Your task to perform on an android device: turn on location history Image 0: 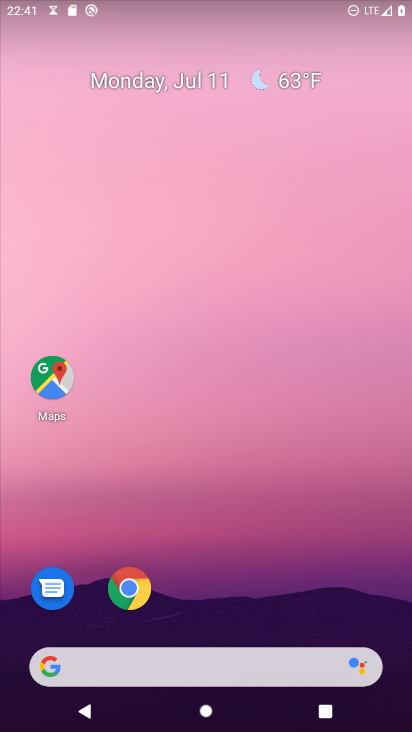
Step 0: press home button
Your task to perform on an android device: turn on location history Image 1: 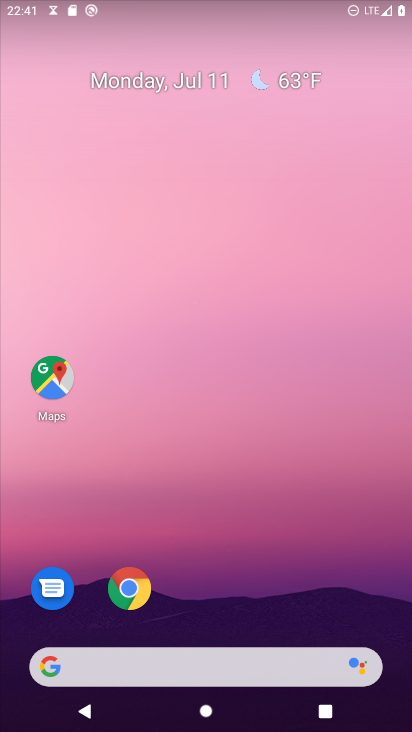
Step 1: drag from (222, 623) to (259, 78)
Your task to perform on an android device: turn on location history Image 2: 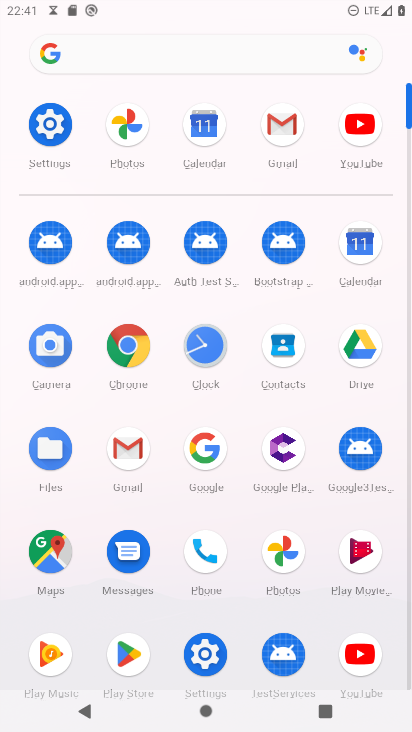
Step 2: click (56, 124)
Your task to perform on an android device: turn on location history Image 3: 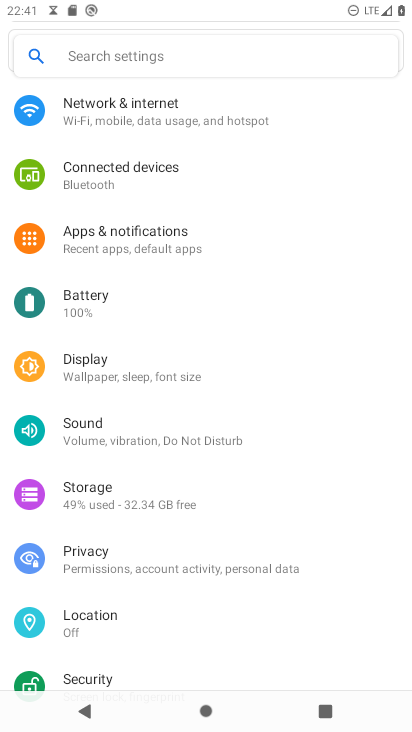
Step 3: click (89, 624)
Your task to perform on an android device: turn on location history Image 4: 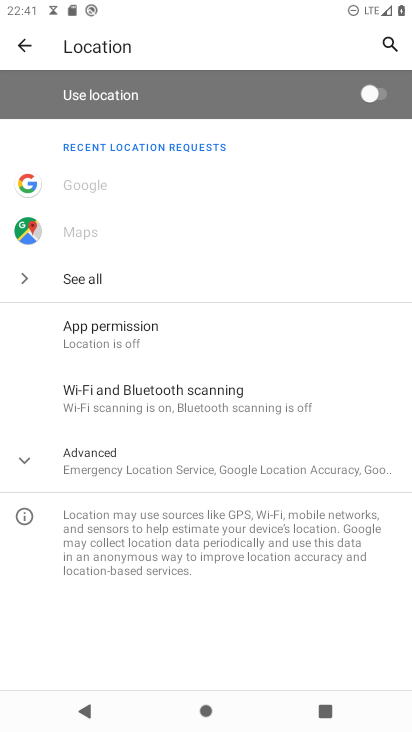
Step 4: click (96, 465)
Your task to perform on an android device: turn on location history Image 5: 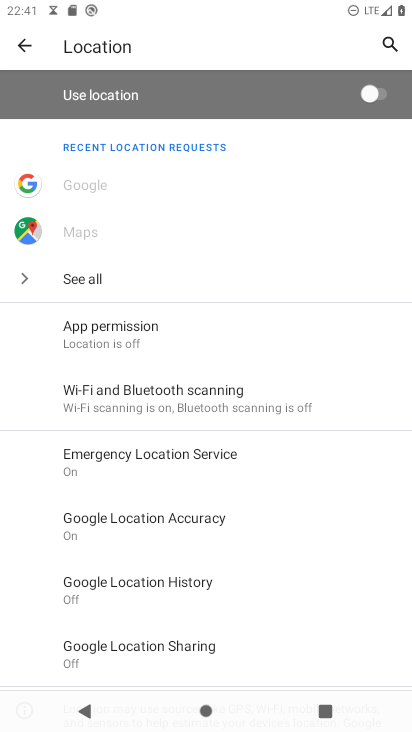
Step 5: click (159, 573)
Your task to perform on an android device: turn on location history Image 6: 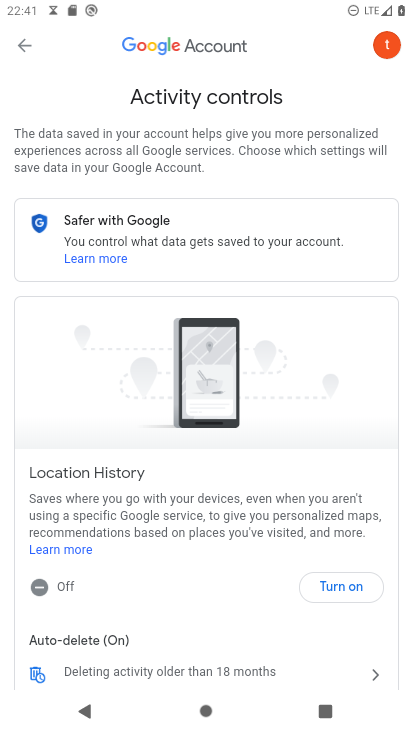
Step 6: click (346, 586)
Your task to perform on an android device: turn on location history Image 7: 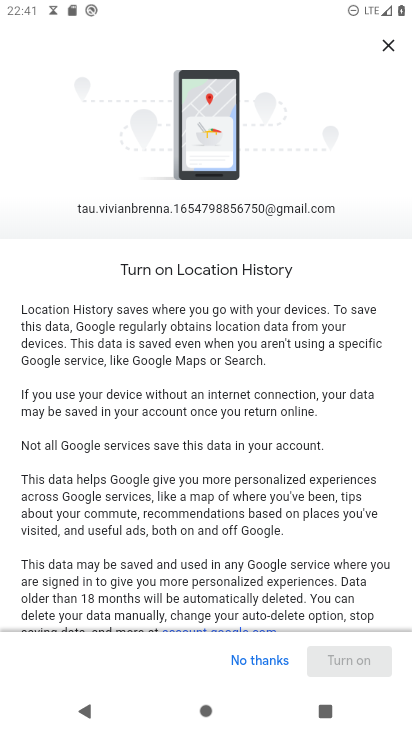
Step 7: drag from (406, 589) to (409, 158)
Your task to perform on an android device: turn on location history Image 8: 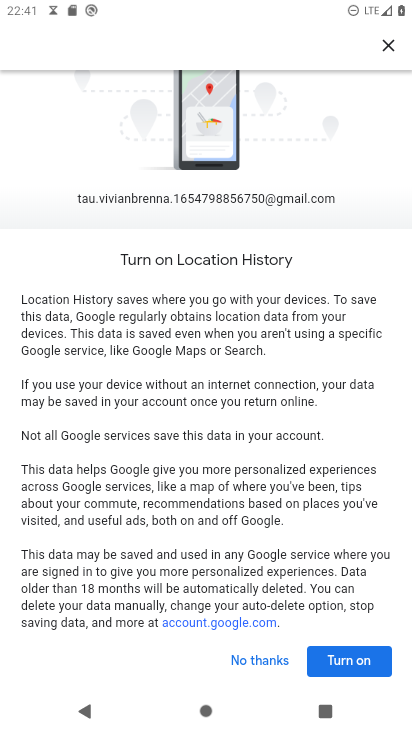
Step 8: click (338, 663)
Your task to perform on an android device: turn on location history Image 9: 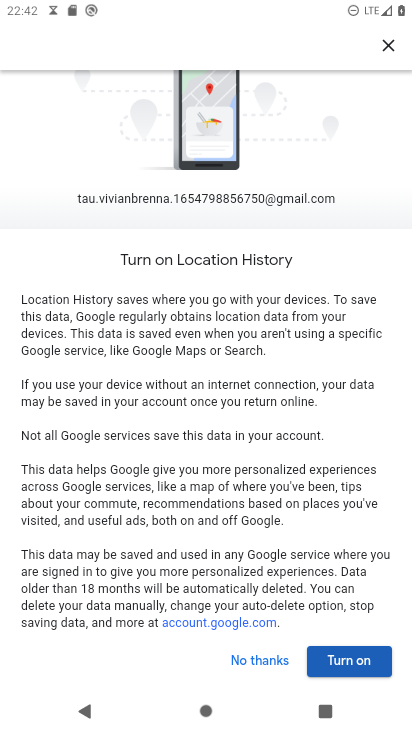
Step 9: click (347, 666)
Your task to perform on an android device: turn on location history Image 10: 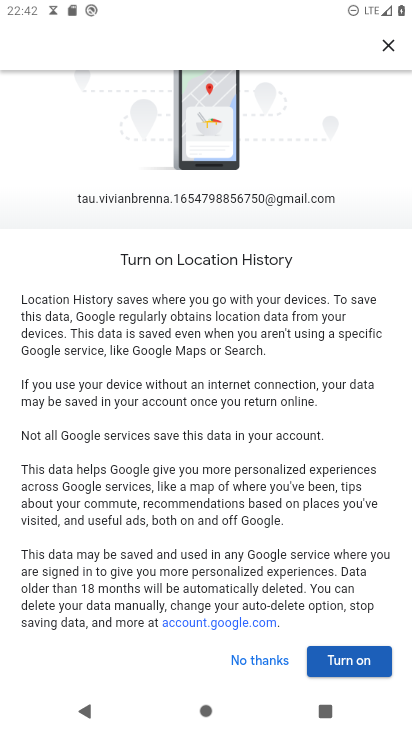
Step 10: click (327, 655)
Your task to perform on an android device: turn on location history Image 11: 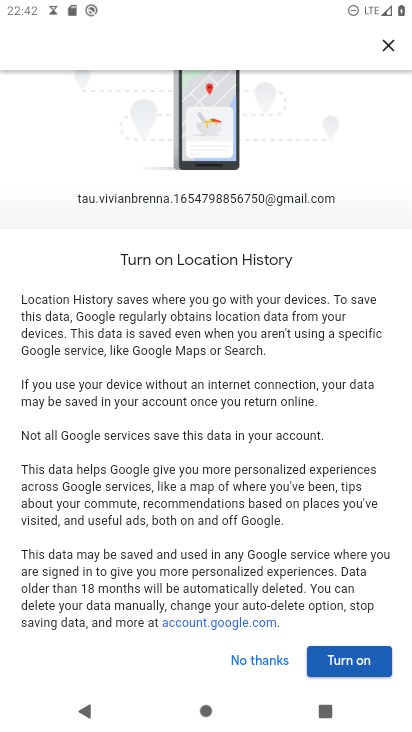
Step 11: drag from (324, 626) to (391, 188)
Your task to perform on an android device: turn on location history Image 12: 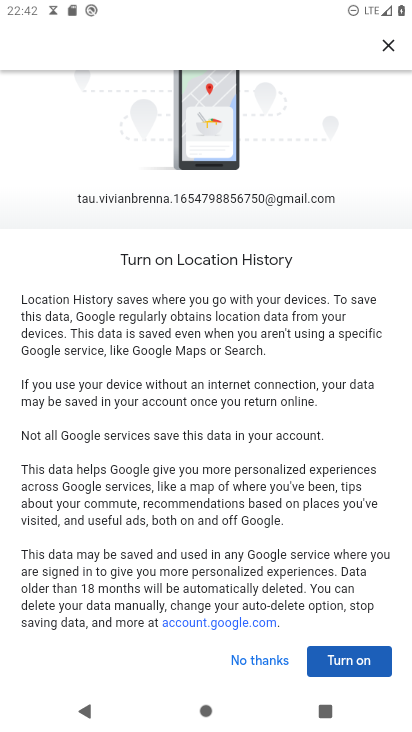
Step 12: click (241, 666)
Your task to perform on an android device: turn on location history Image 13: 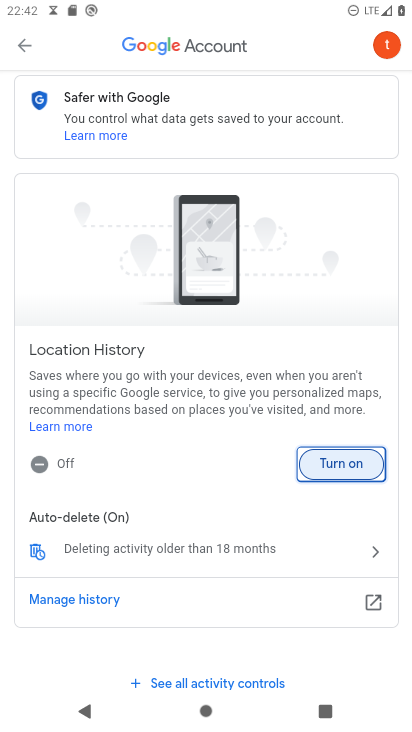
Step 13: click (331, 455)
Your task to perform on an android device: turn on location history Image 14: 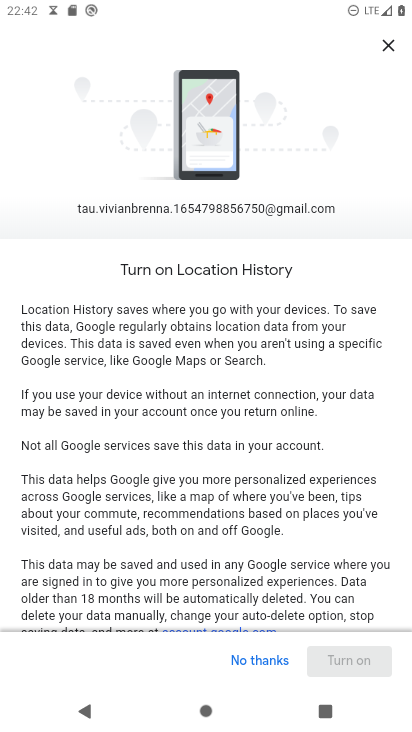
Step 14: drag from (388, 601) to (402, 86)
Your task to perform on an android device: turn on location history Image 15: 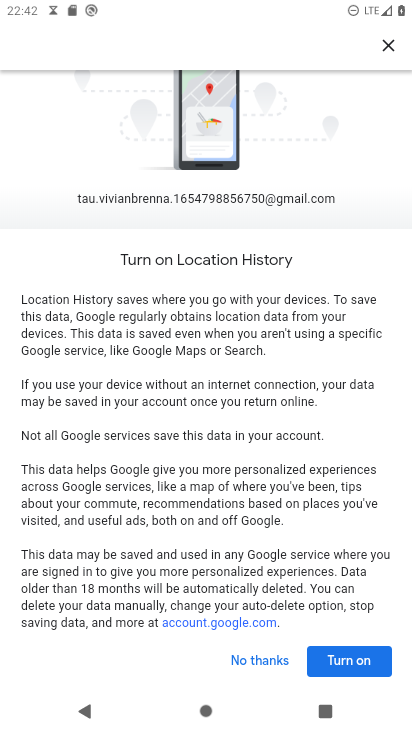
Step 15: click (373, 665)
Your task to perform on an android device: turn on location history Image 16: 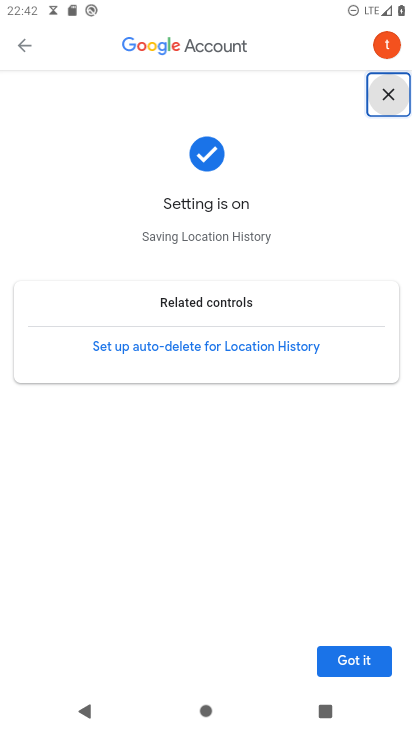
Step 16: click (368, 659)
Your task to perform on an android device: turn on location history Image 17: 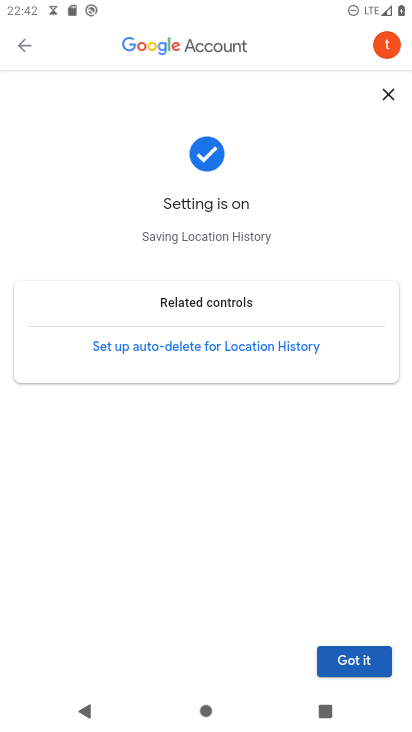
Step 17: task complete